Your task to perform on an android device: Open calendar and show me the first week of next month Image 0: 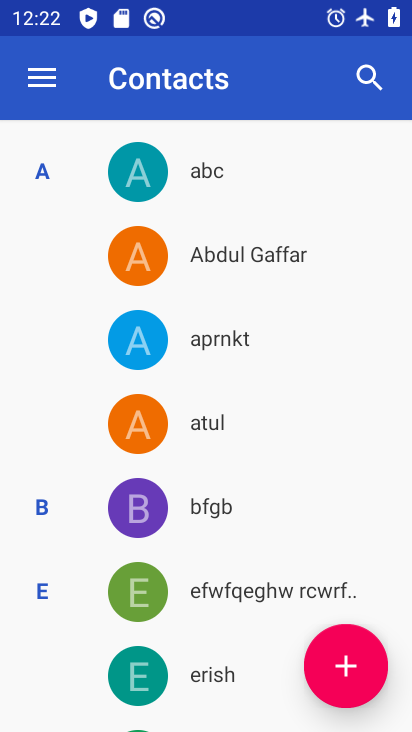
Step 0: press home button
Your task to perform on an android device: Open calendar and show me the first week of next month Image 1: 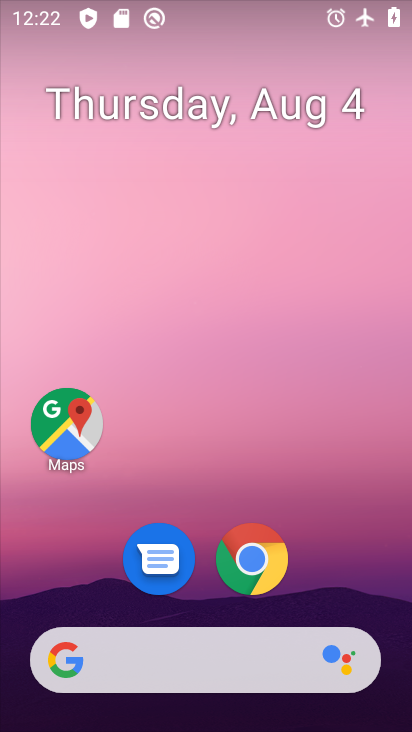
Step 1: drag from (204, 644) to (215, 141)
Your task to perform on an android device: Open calendar and show me the first week of next month Image 2: 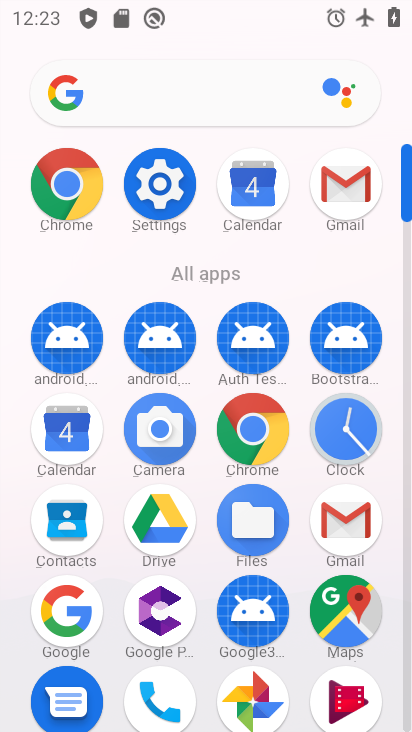
Step 2: click (69, 433)
Your task to perform on an android device: Open calendar and show me the first week of next month Image 3: 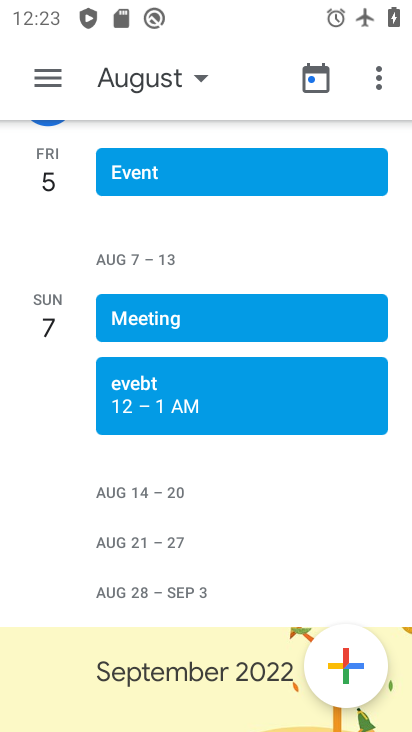
Step 3: click (317, 85)
Your task to perform on an android device: Open calendar and show me the first week of next month Image 4: 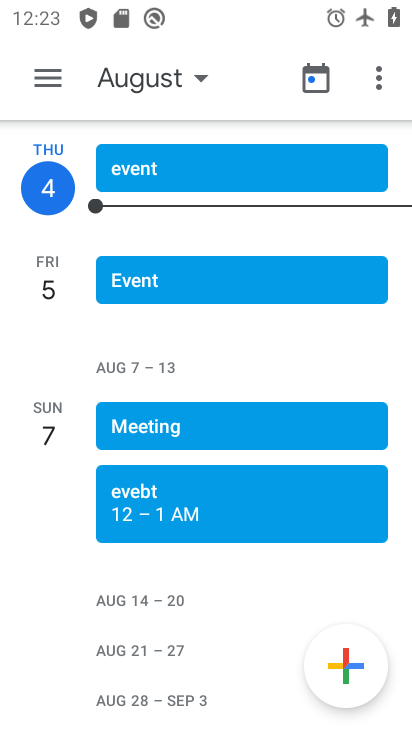
Step 4: click (188, 77)
Your task to perform on an android device: Open calendar and show me the first week of next month Image 5: 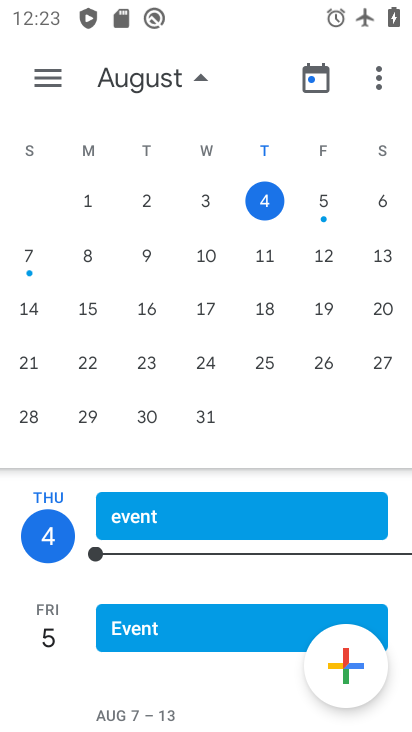
Step 5: drag from (372, 292) to (8, 303)
Your task to perform on an android device: Open calendar and show me the first week of next month Image 6: 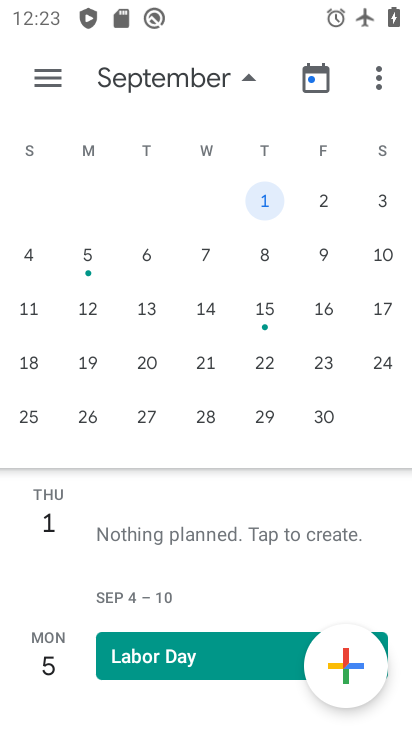
Step 6: click (81, 254)
Your task to perform on an android device: Open calendar and show me the first week of next month Image 7: 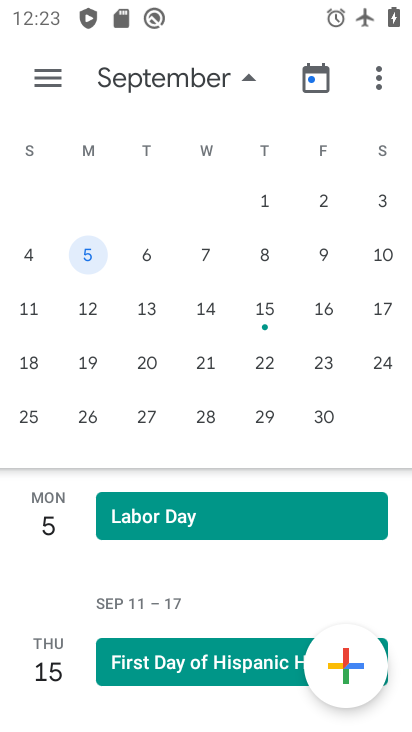
Step 7: click (47, 72)
Your task to perform on an android device: Open calendar and show me the first week of next month Image 8: 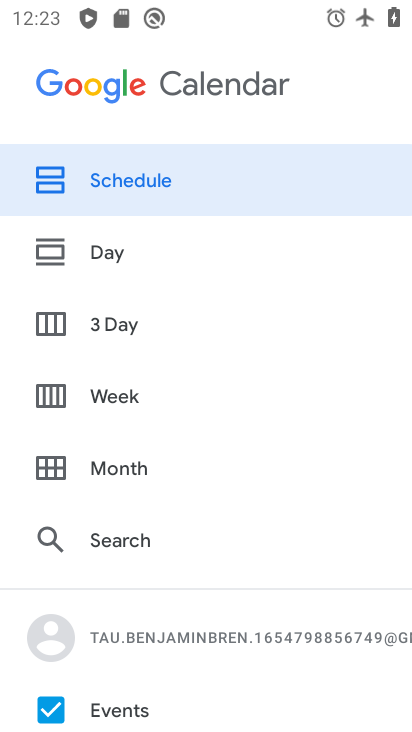
Step 8: click (131, 387)
Your task to perform on an android device: Open calendar and show me the first week of next month Image 9: 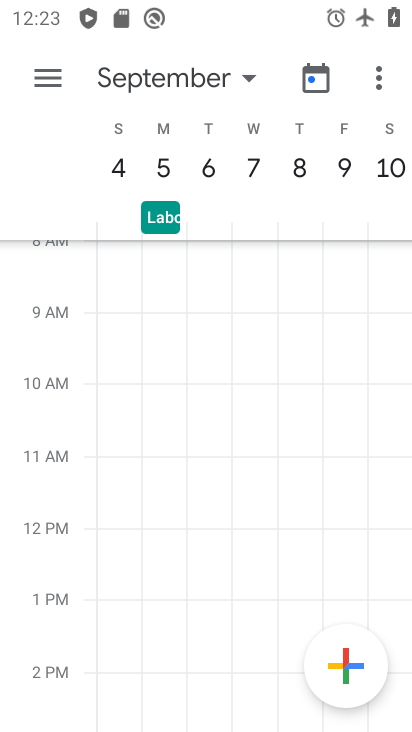
Step 9: task complete